Your task to perform on an android device: Open maps Image 0: 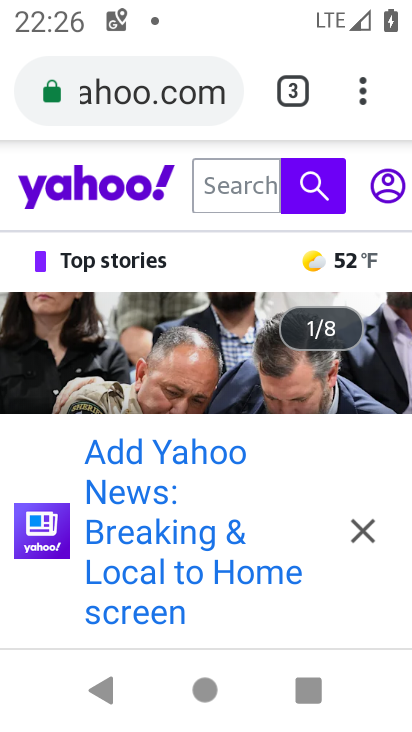
Step 0: press home button
Your task to perform on an android device: Open maps Image 1: 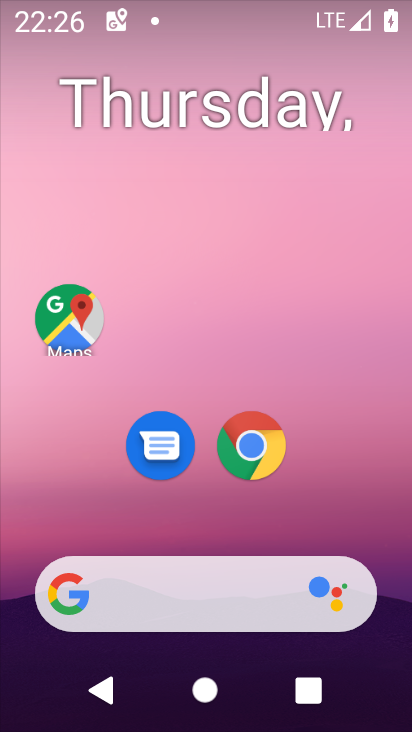
Step 1: drag from (234, 514) to (233, 168)
Your task to perform on an android device: Open maps Image 2: 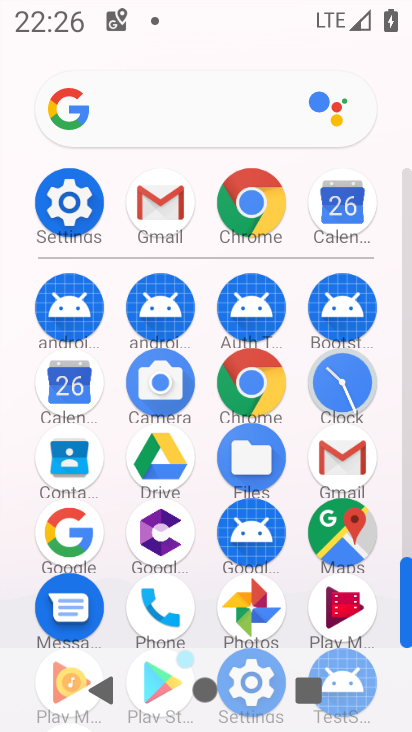
Step 2: click (332, 539)
Your task to perform on an android device: Open maps Image 3: 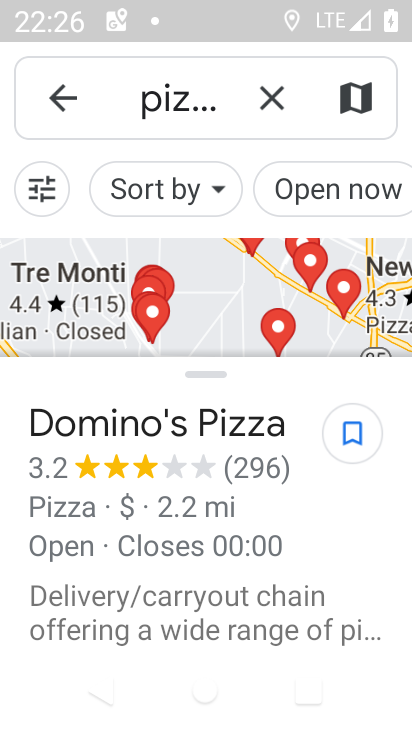
Step 3: click (259, 122)
Your task to perform on an android device: Open maps Image 4: 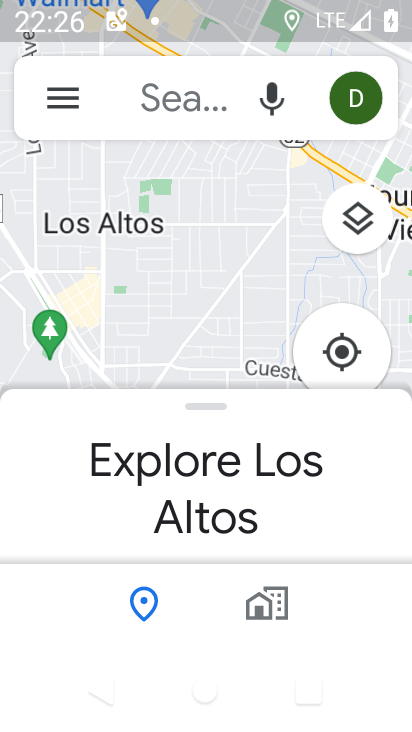
Step 4: click (171, 121)
Your task to perform on an android device: Open maps Image 5: 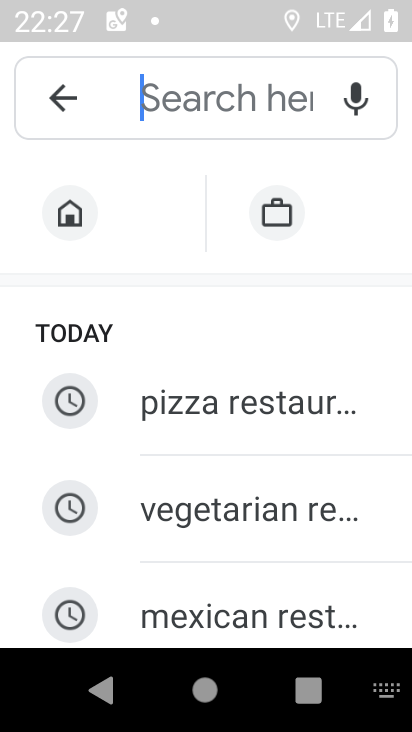
Step 5: task complete